Your task to perform on an android device: check google app version Image 0: 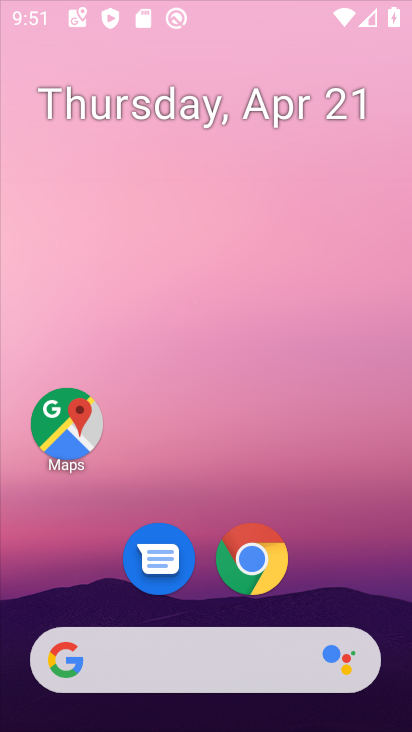
Step 0: click (181, 240)
Your task to perform on an android device: check google app version Image 1: 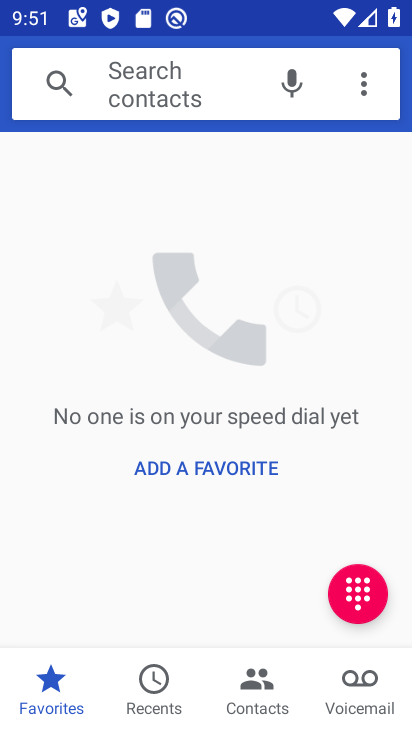
Step 1: press home button
Your task to perform on an android device: check google app version Image 2: 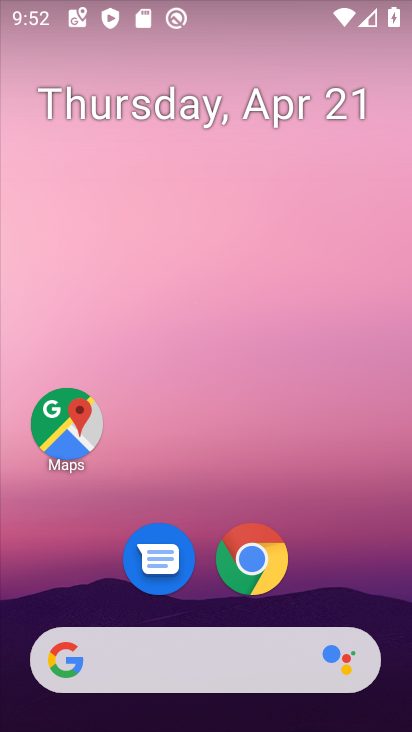
Step 2: drag from (186, 697) to (298, 301)
Your task to perform on an android device: check google app version Image 3: 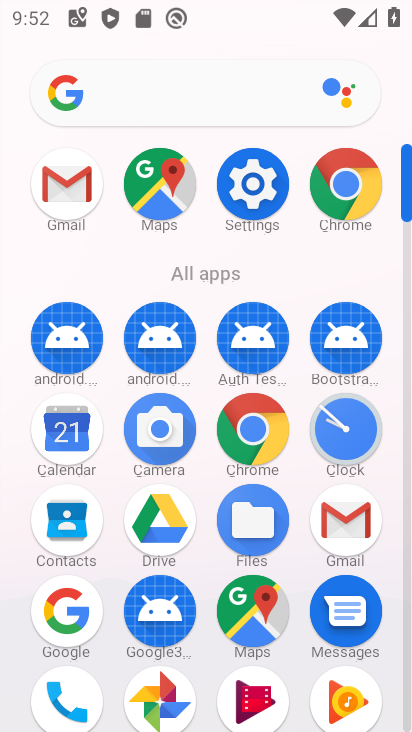
Step 3: click (361, 179)
Your task to perform on an android device: check google app version Image 4: 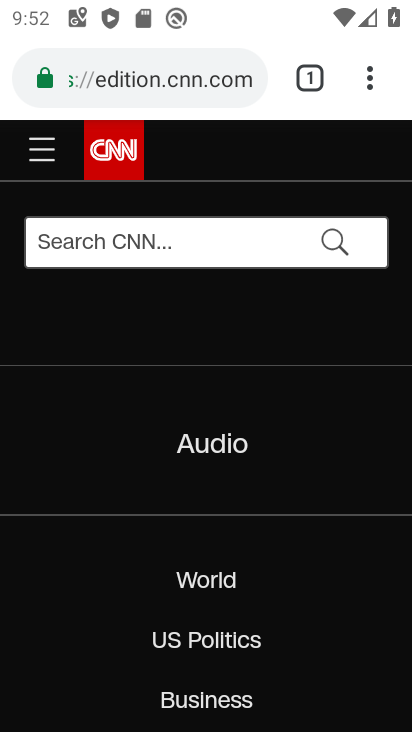
Step 4: click (309, 80)
Your task to perform on an android device: check google app version Image 5: 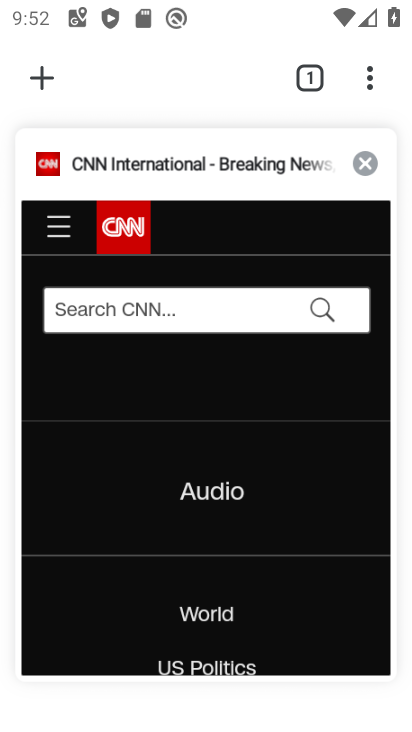
Step 5: click (42, 79)
Your task to perform on an android device: check google app version Image 6: 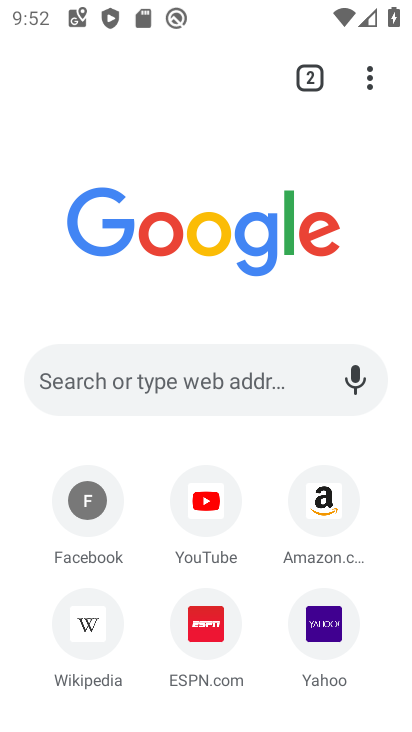
Step 6: click (361, 83)
Your task to perform on an android device: check google app version Image 7: 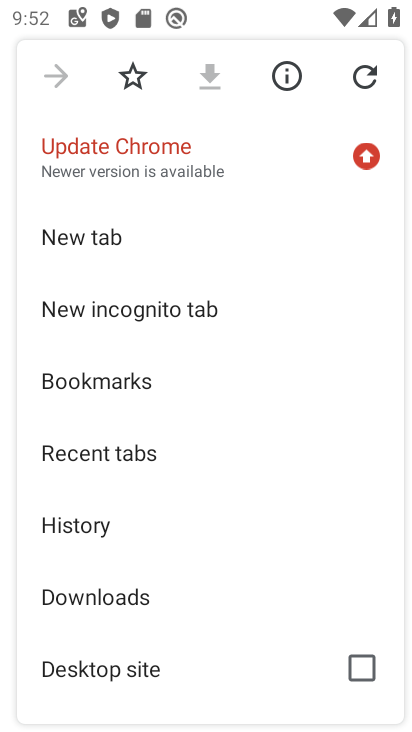
Step 7: drag from (144, 492) to (151, 410)
Your task to perform on an android device: check google app version Image 8: 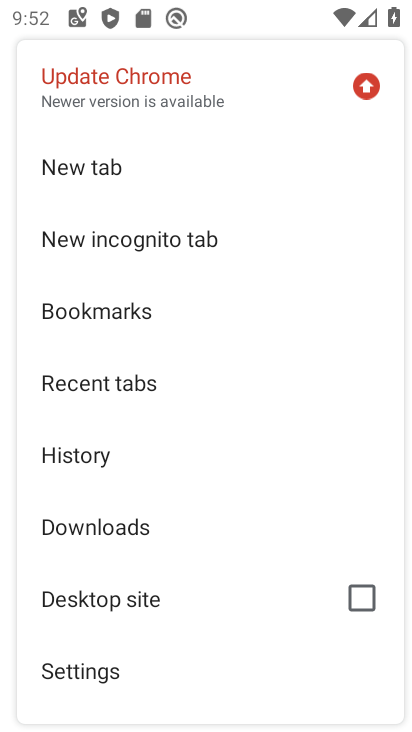
Step 8: click (70, 676)
Your task to perform on an android device: check google app version Image 9: 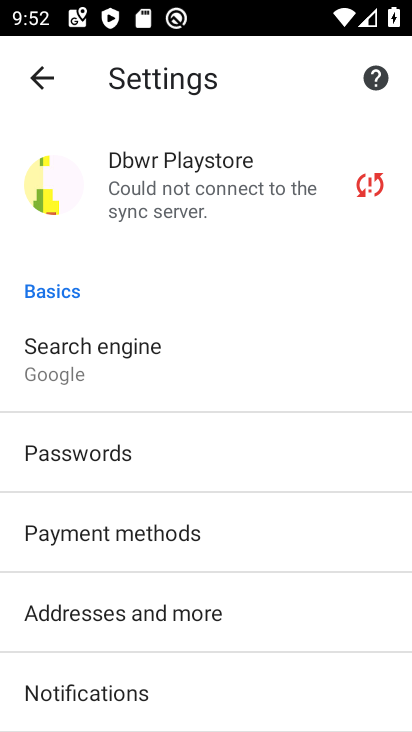
Step 9: drag from (112, 641) to (196, 412)
Your task to perform on an android device: check google app version Image 10: 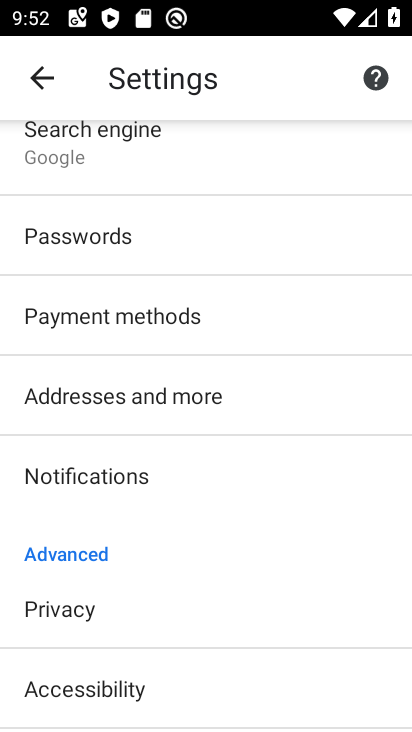
Step 10: drag from (166, 567) to (235, 266)
Your task to perform on an android device: check google app version Image 11: 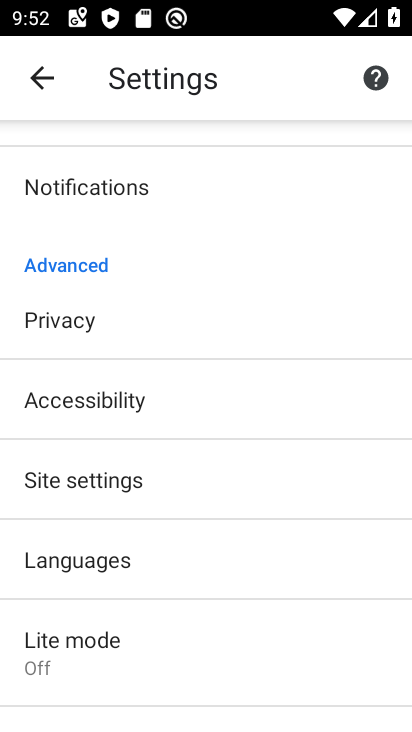
Step 11: drag from (127, 595) to (191, 241)
Your task to perform on an android device: check google app version Image 12: 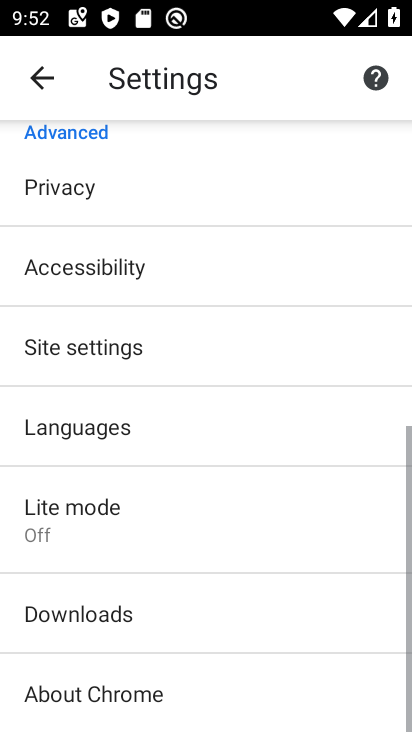
Step 12: click (112, 677)
Your task to perform on an android device: check google app version Image 13: 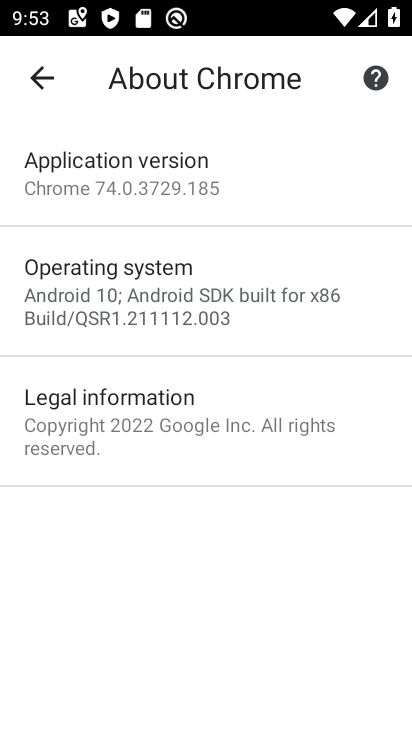
Step 13: click (112, 196)
Your task to perform on an android device: check google app version Image 14: 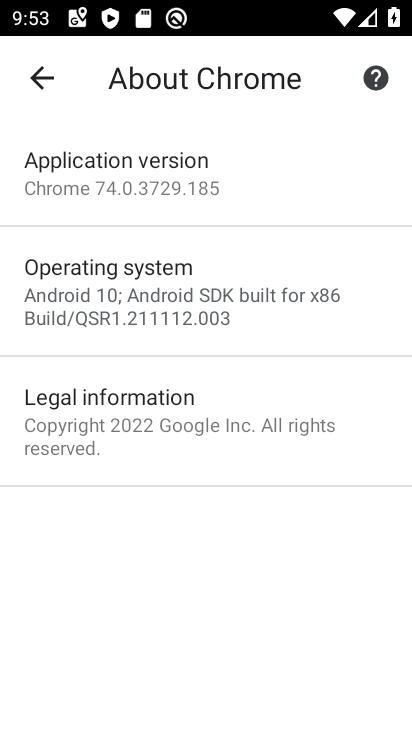
Step 14: task complete